Your task to perform on an android device: open app "PlayWell" Image 0: 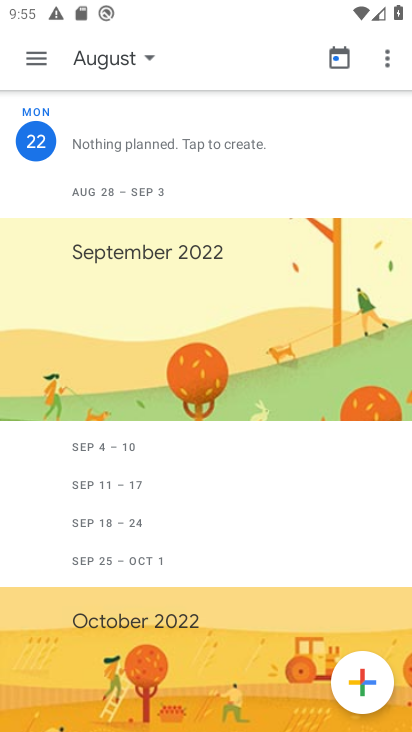
Step 0: press home button
Your task to perform on an android device: open app "PlayWell" Image 1: 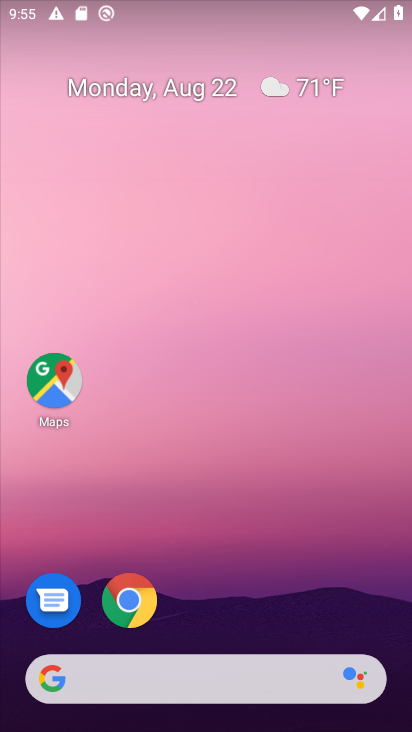
Step 1: drag from (228, 576) to (188, 123)
Your task to perform on an android device: open app "PlayWell" Image 2: 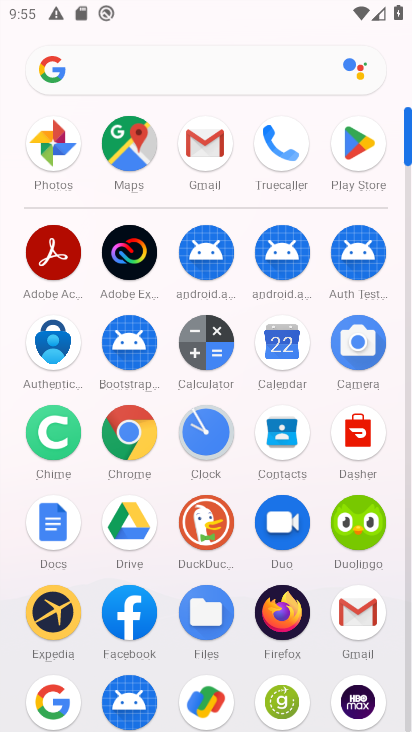
Step 2: click (350, 145)
Your task to perform on an android device: open app "PlayWell" Image 3: 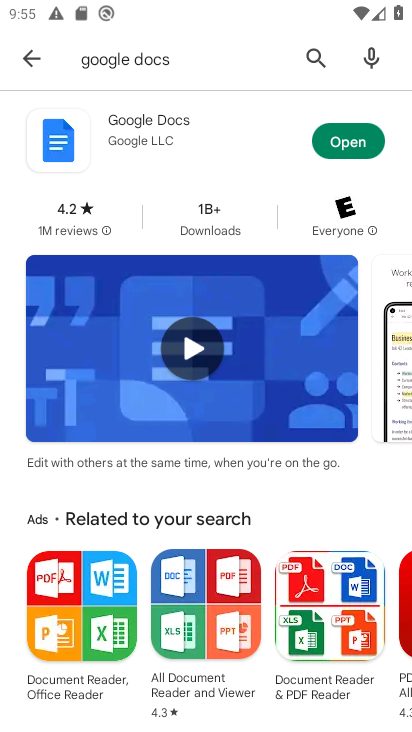
Step 3: click (318, 55)
Your task to perform on an android device: open app "PlayWell" Image 4: 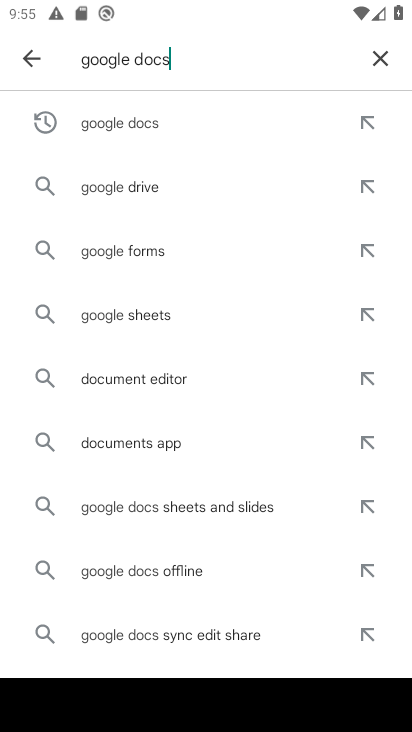
Step 4: click (369, 61)
Your task to perform on an android device: open app "PlayWell" Image 5: 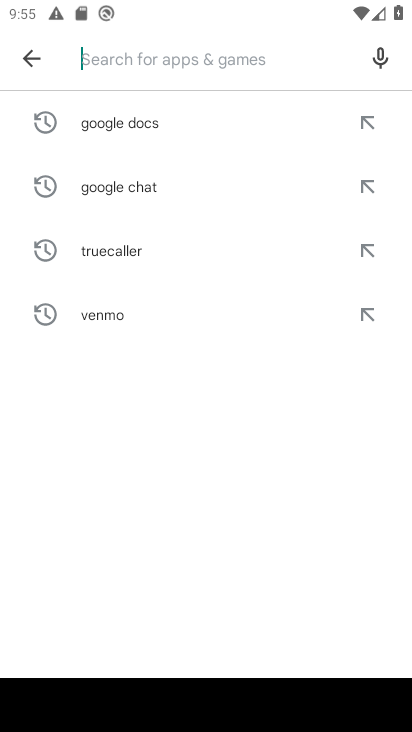
Step 5: type "PlayWell"
Your task to perform on an android device: open app "PlayWell" Image 6: 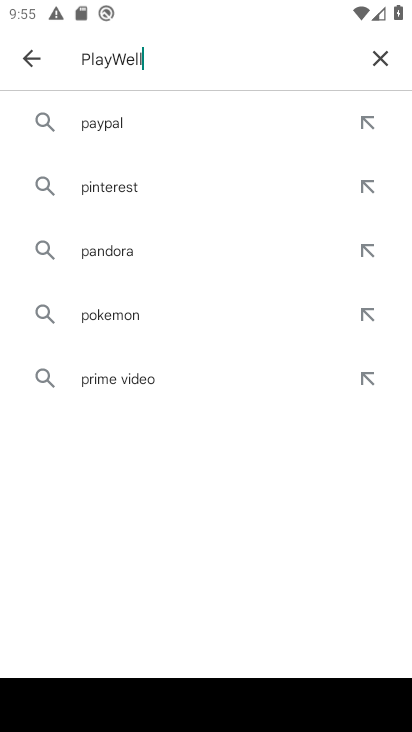
Step 6: type ""
Your task to perform on an android device: open app "PlayWell" Image 7: 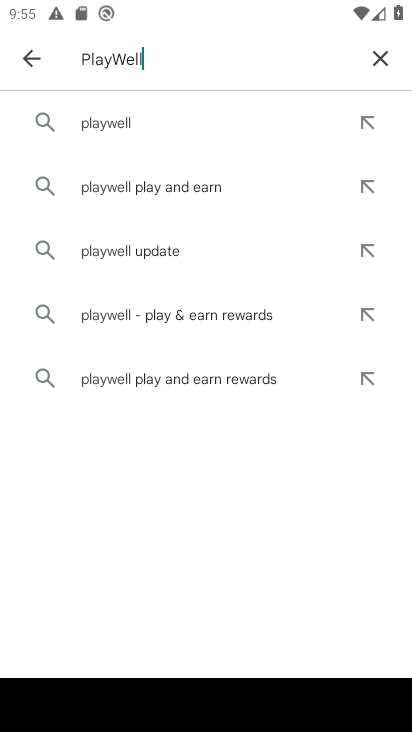
Step 7: click (207, 117)
Your task to perform on an android device: open app "PlayWell" Image 8: 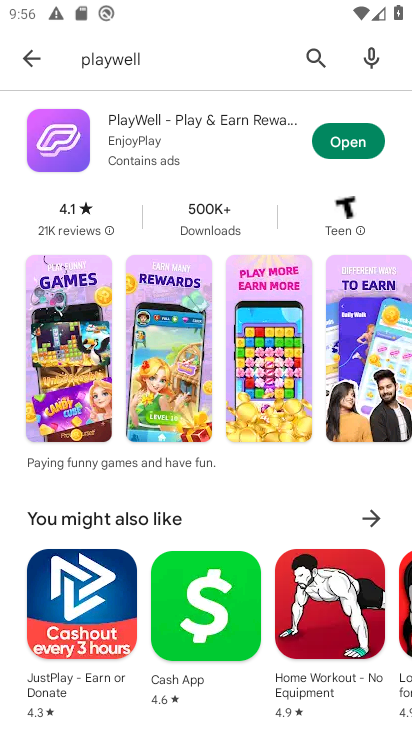
Step 8: click (346, 131)
Your task to perform on an android device: open app "PlayWell" Image 9: 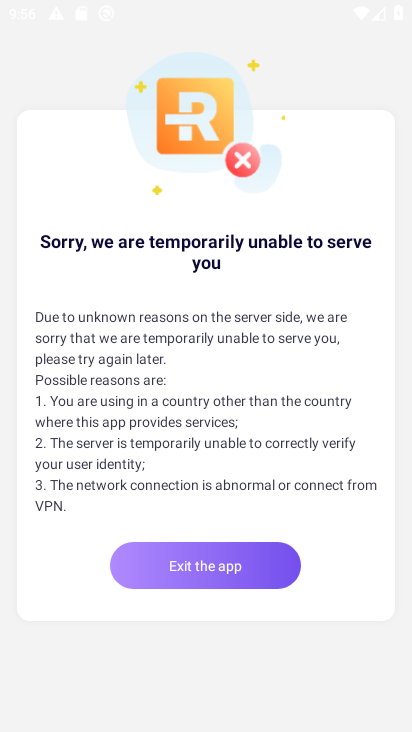
Step 9: task complete